Your task to perform on an android device: Open Yahoo.com Image 0: 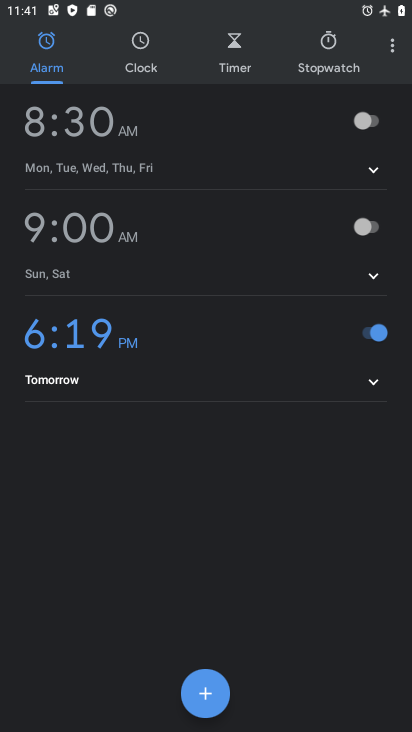
Step 0: press home button
Your task to perform on an android device: Open Yahoo.com Image 1: 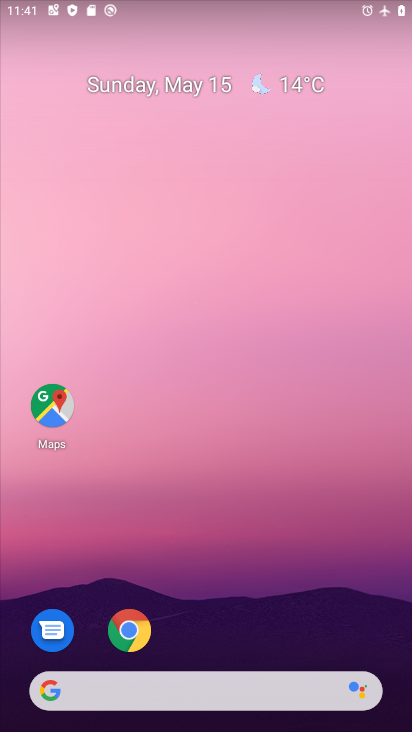
Step 1: click (125, 633)
Your task to perform on an android device: Open Yahoo.com Image 2: 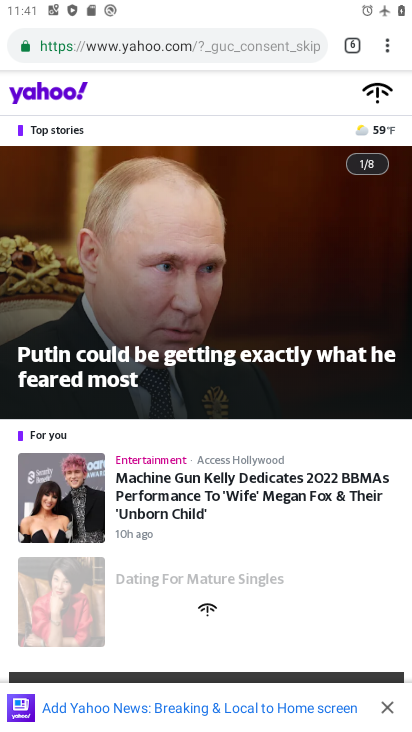
Step 2: task complete